Your task to perform on an android device: change timer sound Image 0: 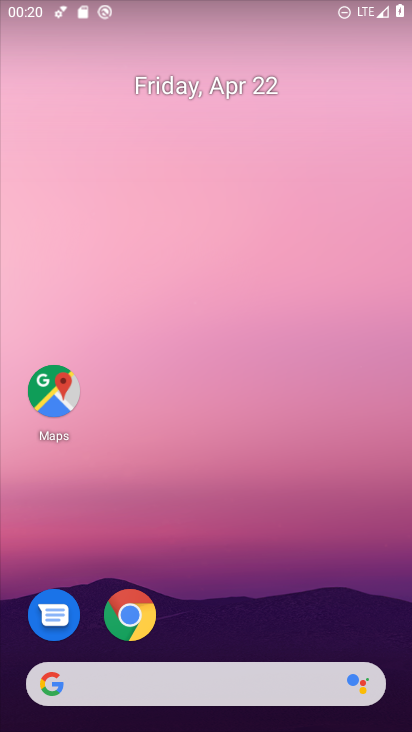
Step 0: click (246, 59)
Your task to perform on an android device: change timer sound Image 1: 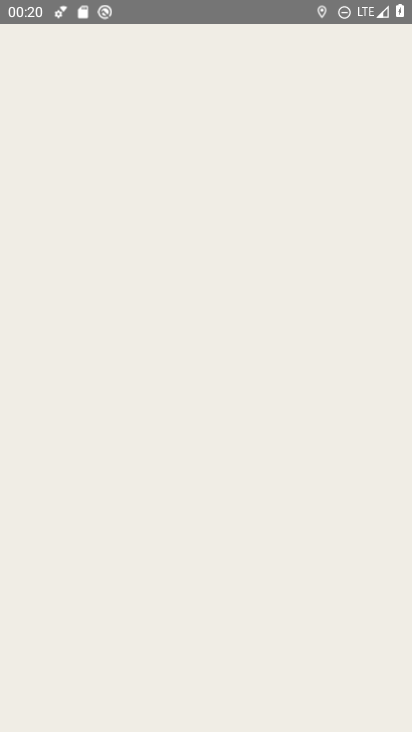
Step 1: press home button
Your task to perform on an android device: change timer sound Image 2: 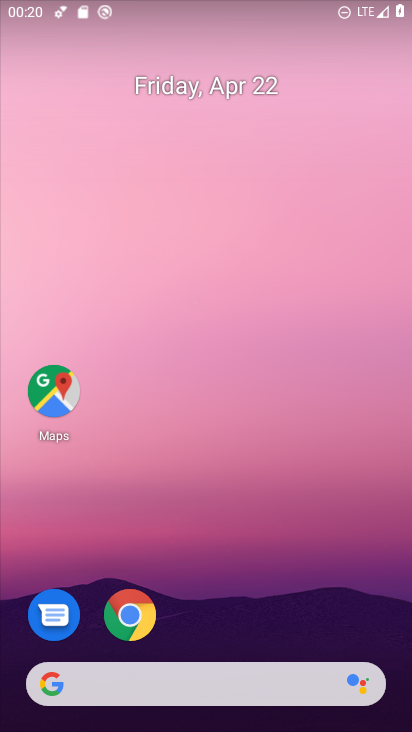
Step 2: drag from (217, 650) to (279, 83)
Your task to perform on an android device: change timer sound Image 3: 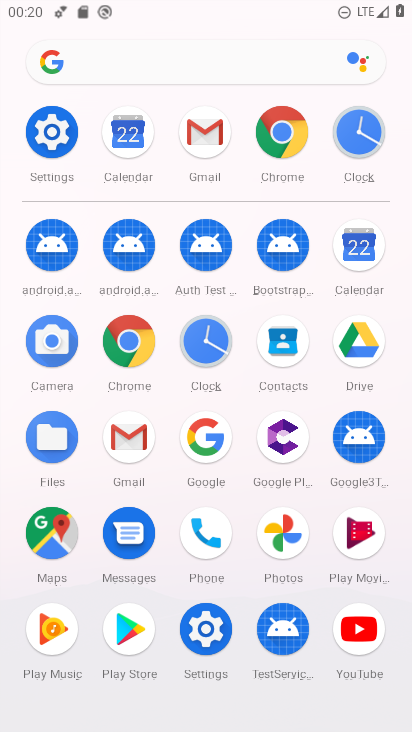
Step 3: click (206, 331)
Your task to perform on an android device: change timer sound Image 4: 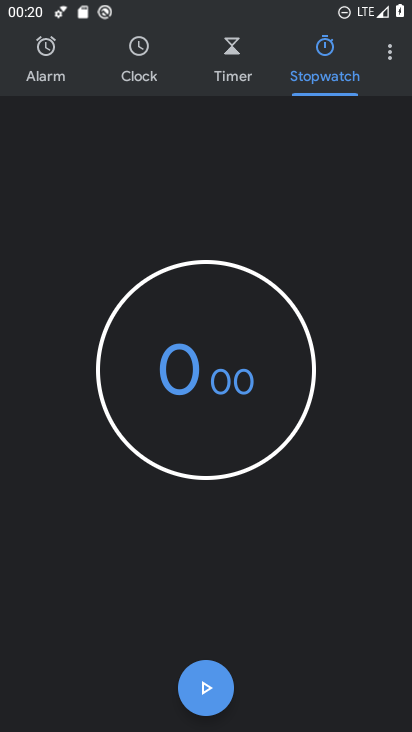
Step 4: click (390, 47)
Your task to perform on an android device: change timer sound Image 5: 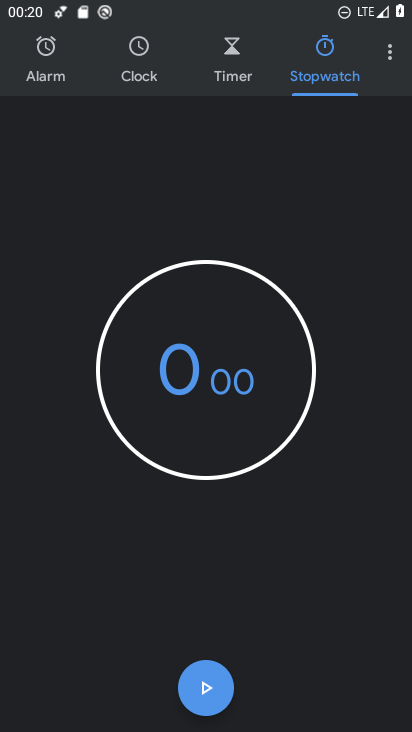
Step 5: click (390, 51)
Your task to perform on an android device: change timer sound Image 6: 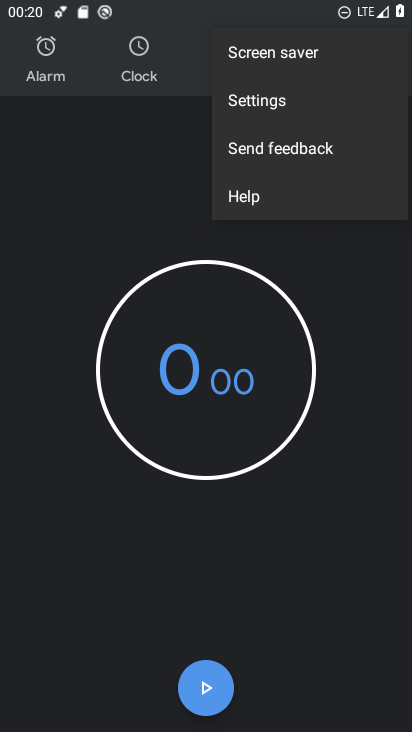
Step 6: click (293, 97)
Your task to perform on an android device: change timer sound Image 7: 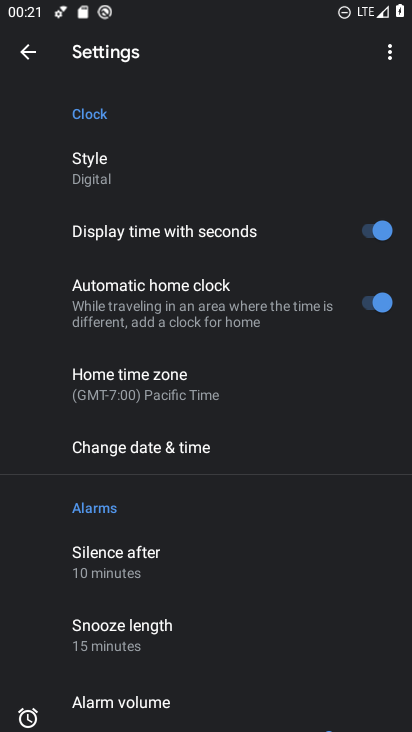
Step 7: drag from (233, 638) to (276, 230)
Your task to perform on an android device: change timer sound Image 8: 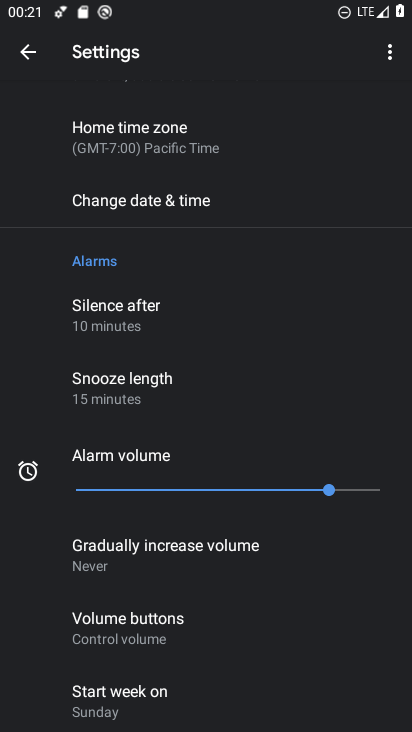
Step 8: drag from (255, 656) to (265, 278)
Your task to perform on an android device: change timer sound Image 9: 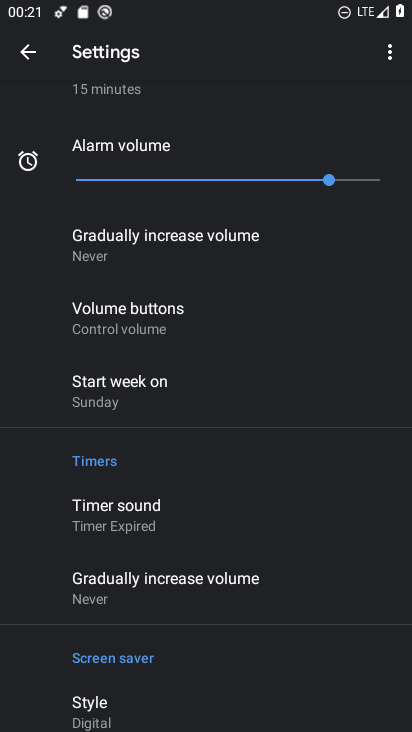
Step 9: click (172, 515)
Your task to perform on an android device: change timer sound Image 10: 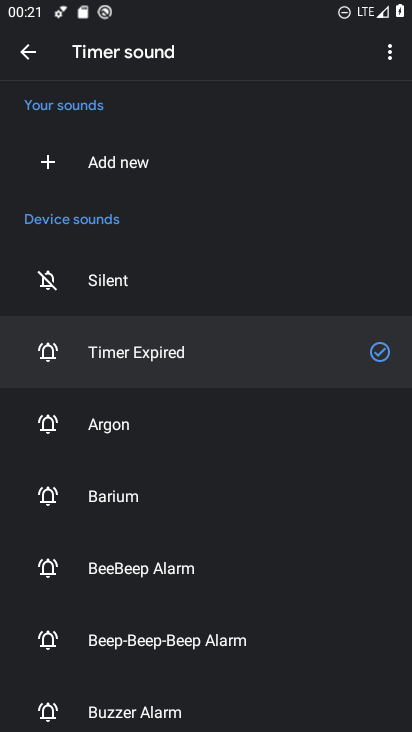
Step 10: click (205, 707)
Your task to perform on an android device: change timer sound Image 11: 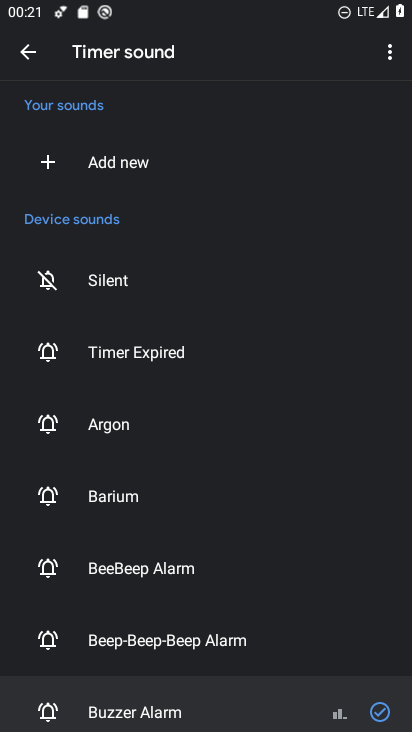
Step 11: task complete